Your task to perform on an android device: find photos in the google photos app Image 0: 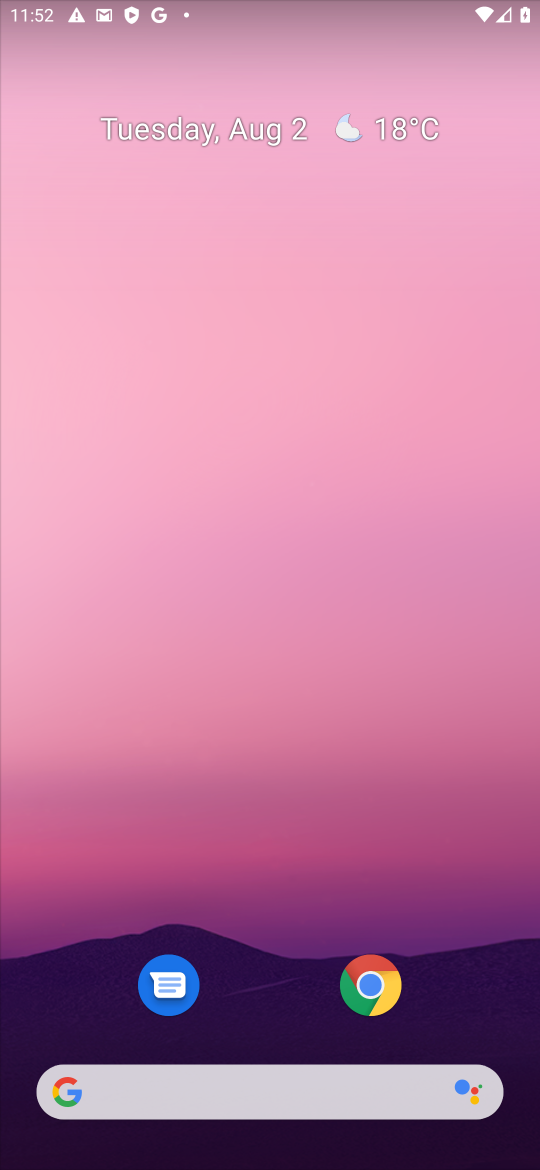
Step 0: drag from (290, 1032) to (154, 14)
Your task to perform on an android device: find photos in the google photos app Image 1: 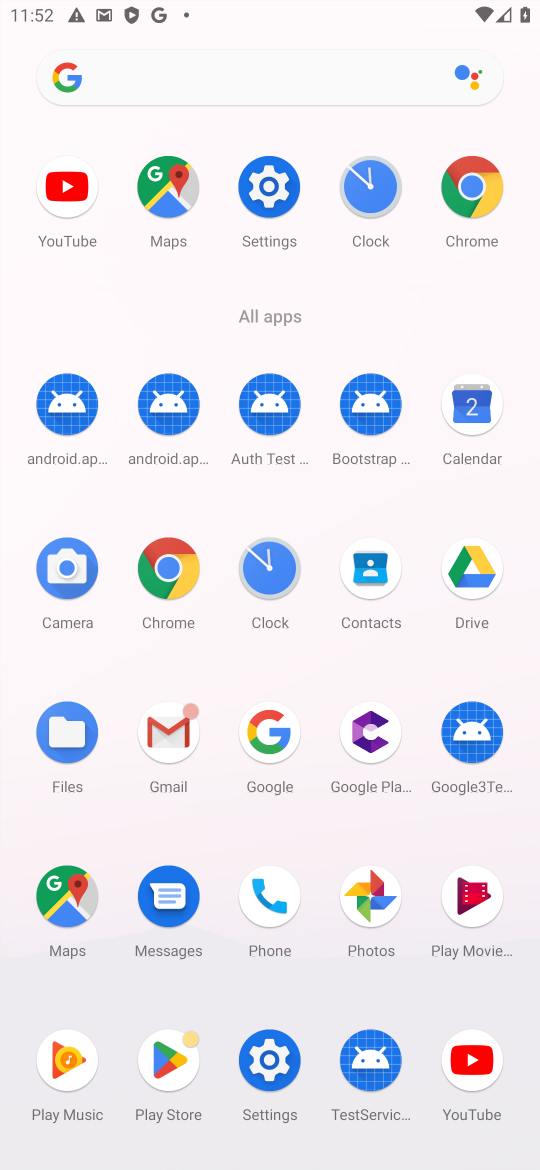
Step 1: click (365, 911)
Your task to perform on an android device: find photos in the google photos app Image 2: 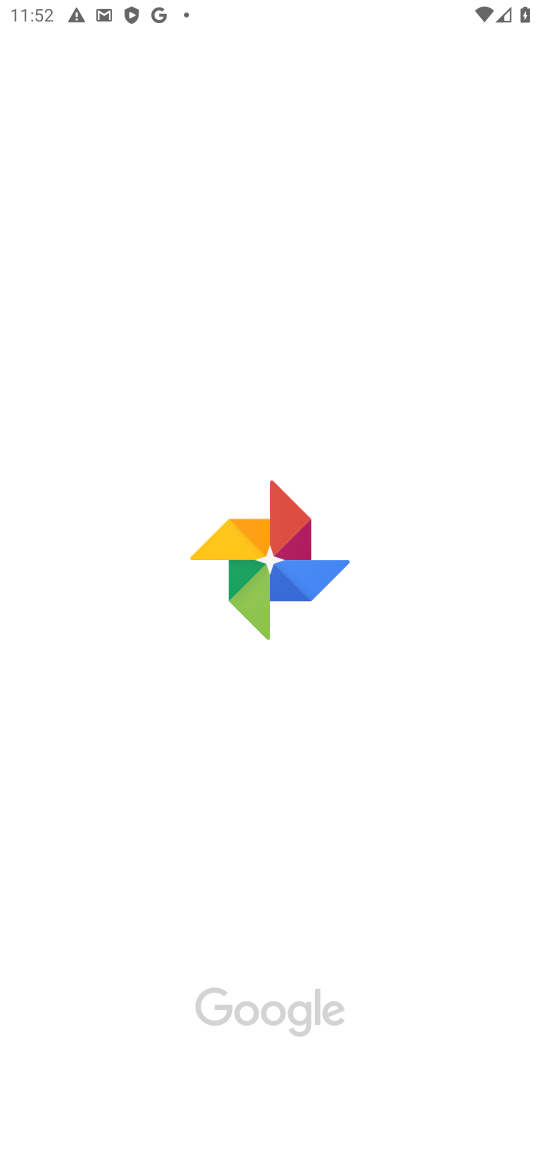
Step 2: task complete